Your task to perform on an android device: Show me popular videos on Youtube Image 0: 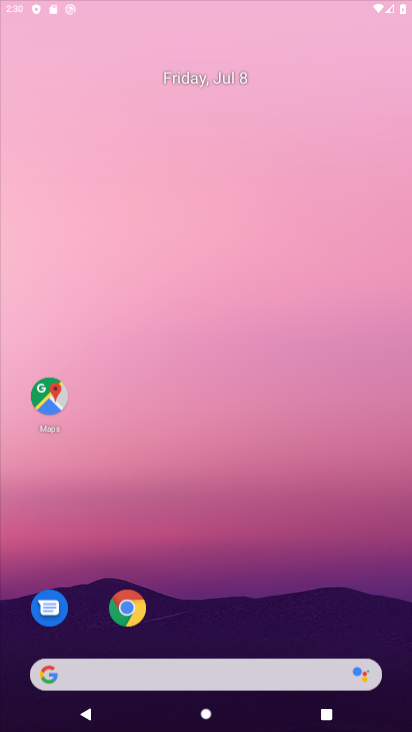
Step 0: drag from (205, 567) to (282, 106)
Your task to perform on an android device: Show me popular videos on Youtube Image 1: 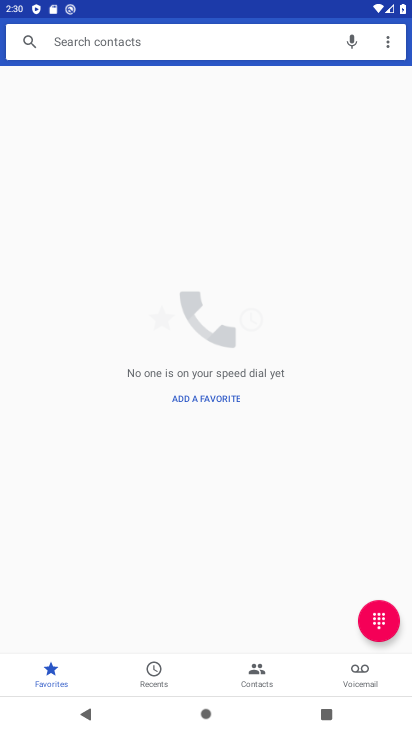
Step 1: press home button
Your task to perform on an android device: Show me popular videos on Youtube Image 2: 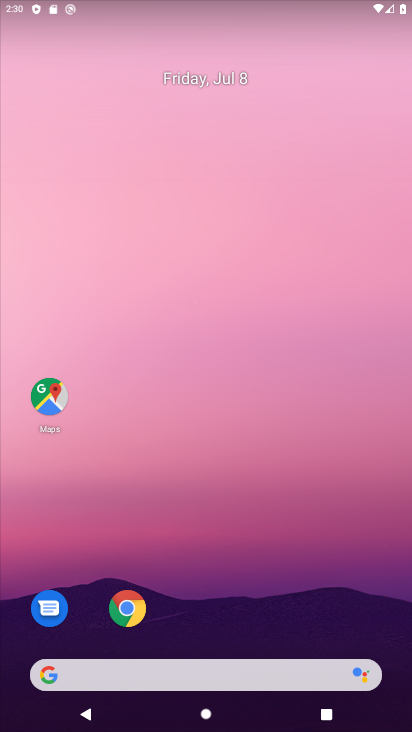
Step 2: drag from (211, 665) to (269, 112)
Your task to perform on an android device: Show me popular videos on Youtube Image 3: 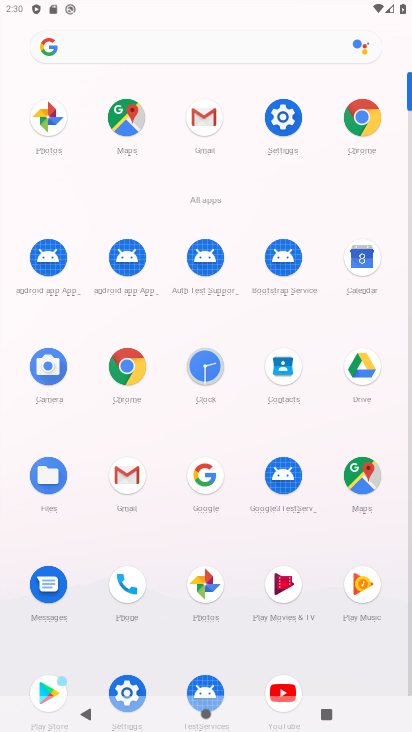
Step 3: click (290, 680)
Your task to perform on an android device: Show me popular videos on Youtube Image 4: 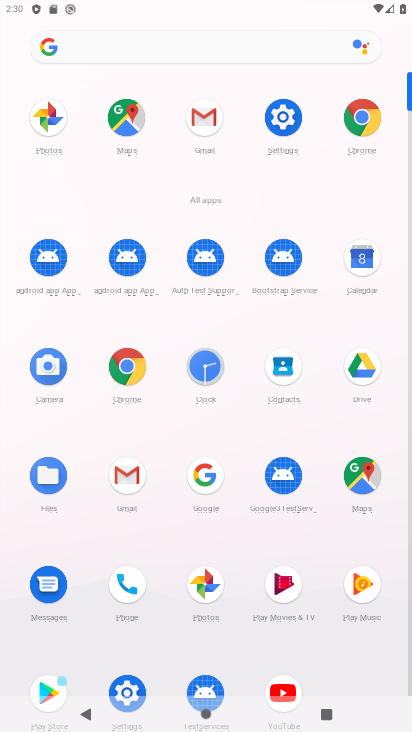
Step 4: click (285, 687)
Your task to perform on an android device: Show me popular videos on Youtube Image 5: 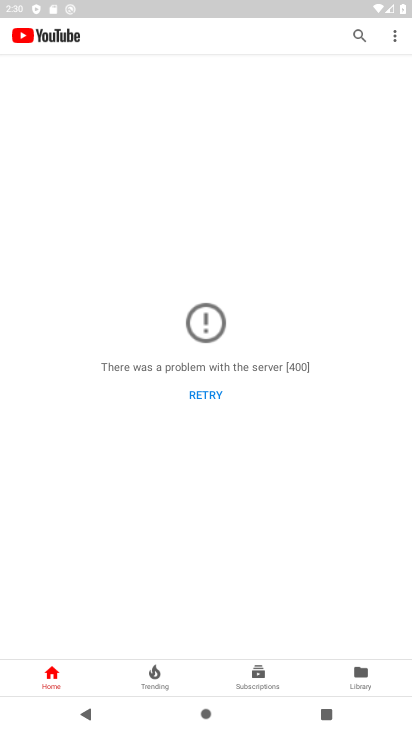
Step 5: click (370, 687)
Your task to perform on an android device: Show me popular videos on Youtube Image 6: 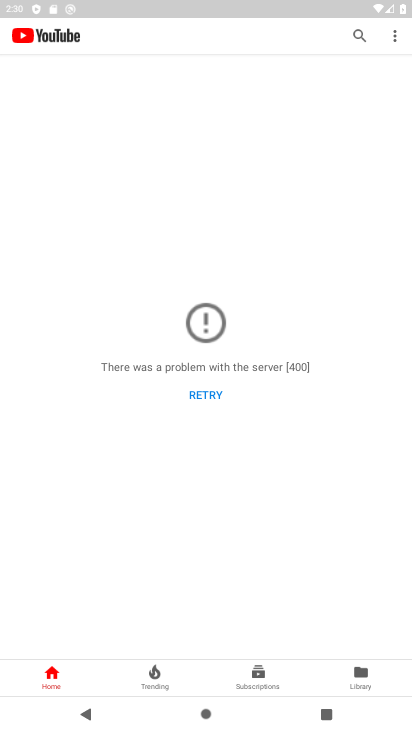
Step 6: task complete